Your task to perform on an android device: Open Chrome and go to the settings page Image 0: 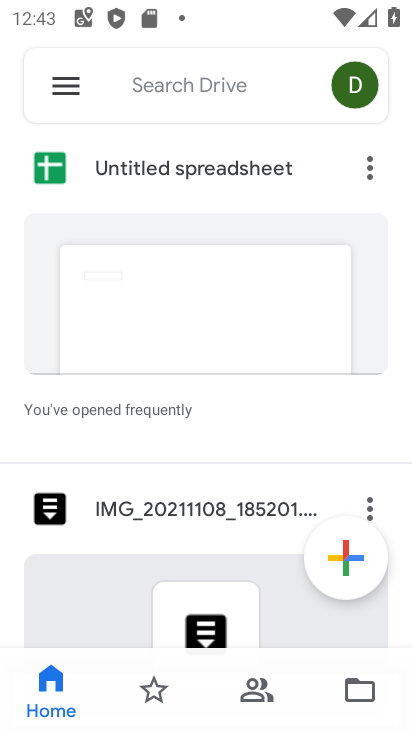
Step 0: press home button
Your task to perform on an android device: Open Chrome and go to the settings page Image 1: 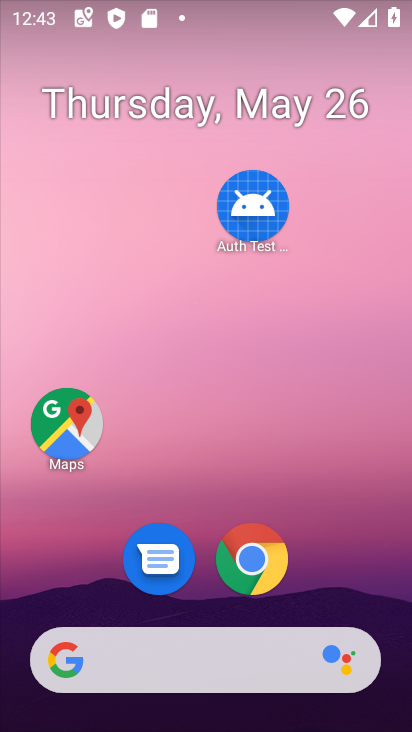
Step 1: click (237, 565)
Your task to perform on an android device: Open Chrome and go to the settings page Image 2: 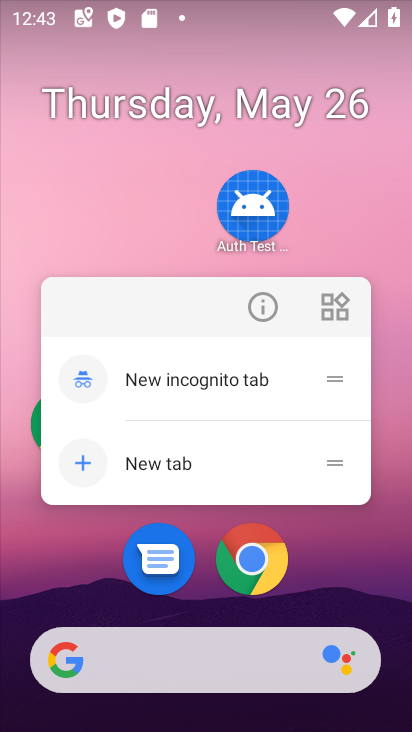
Step 2: click (259, 564)
Your task to perform on an android device: Open Chrome and go to the settings page Image 3: 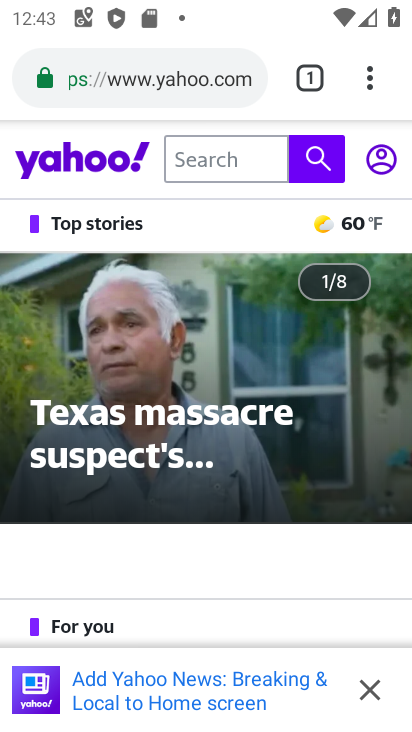
Step 3: click (377, 73)
Your task to perform on an android device: Open Chrome and go to the settings page Image 4: 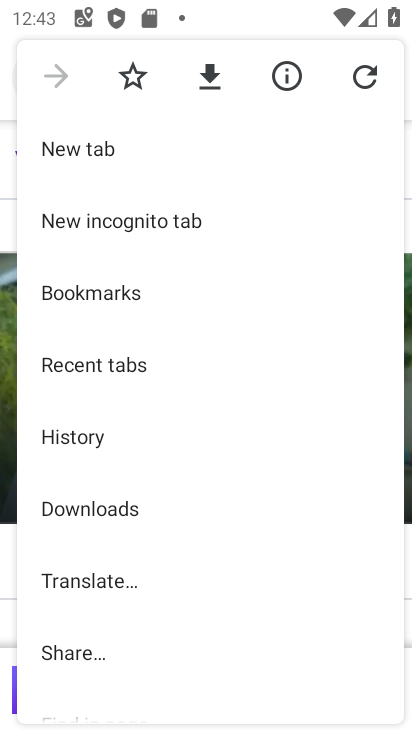
Step 4: drag from (210, 628) to (201, 393)
Your task to perform on an android device: Open Chrome and go to the settings page Image 5: 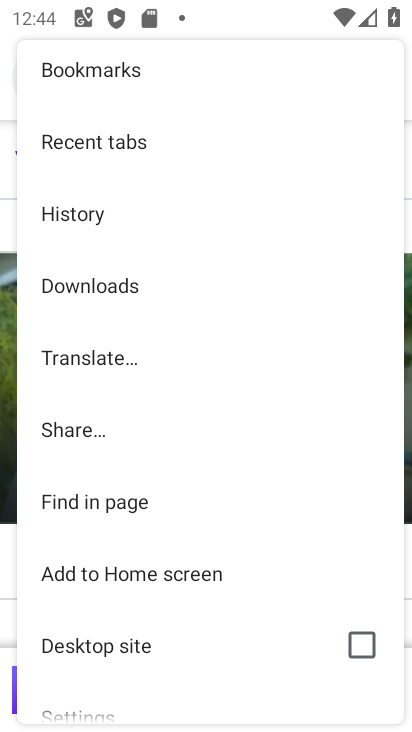
Step 5: drag from (143, 642) to (153, 433)
Your task to perform on an android device: Open Chrome and go to the settings page Image 6: 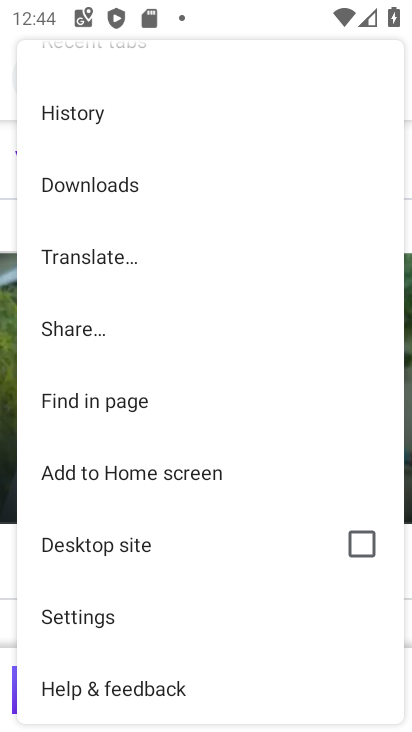
Step 6: click (102, 606)
Your task to perform on an android device: Open Chrome and go to the settings page Image 7: 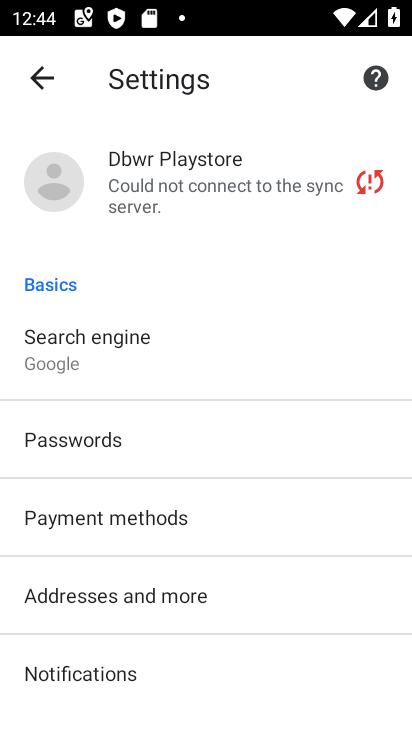
Step 7: task complete